Your task to perform on an android device: check google app version Image 0: 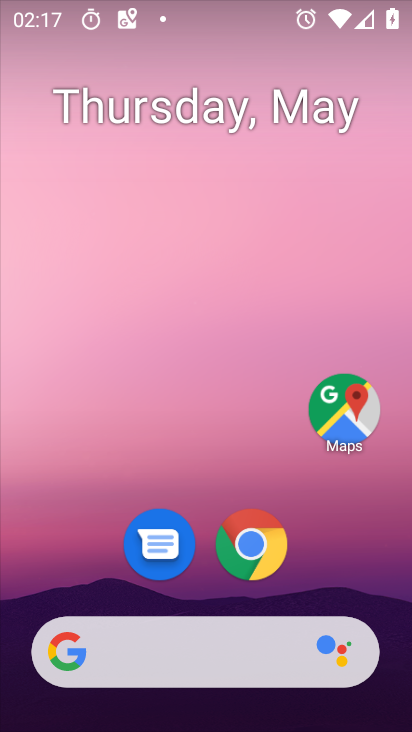
Step 0: drag from (387, 585) to (384, 382)
Your task to perform on an android device: check google app version Image 1: 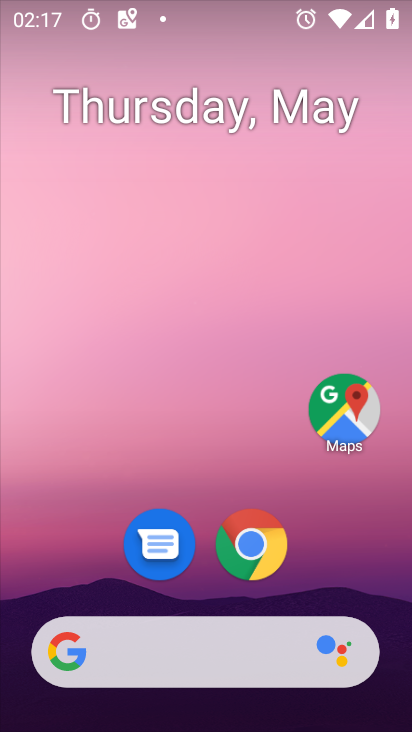
Step 1: drag from (363, 490) to (356, 132)
Your task to perform on an android device: check google app version Image 2: 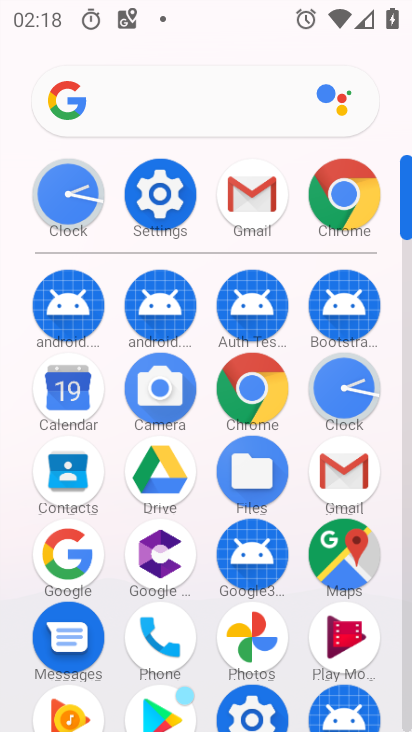
Step 2: click (53, 544)
Your task to perform on an android device: check google app version Image 3: 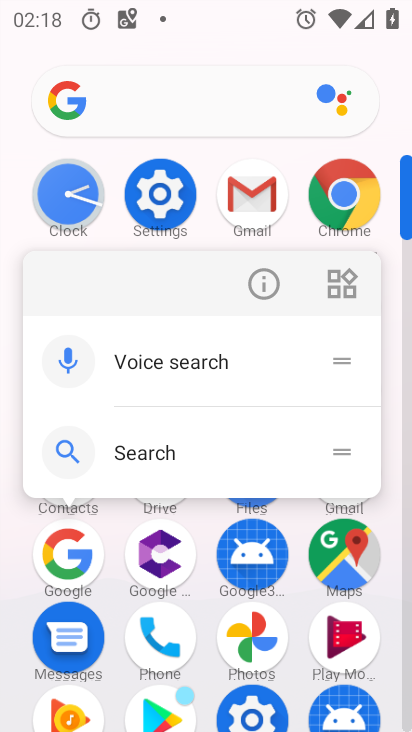
Step 3: click (64, 587)
Your task to perform on an android device: check google app version Image 4: 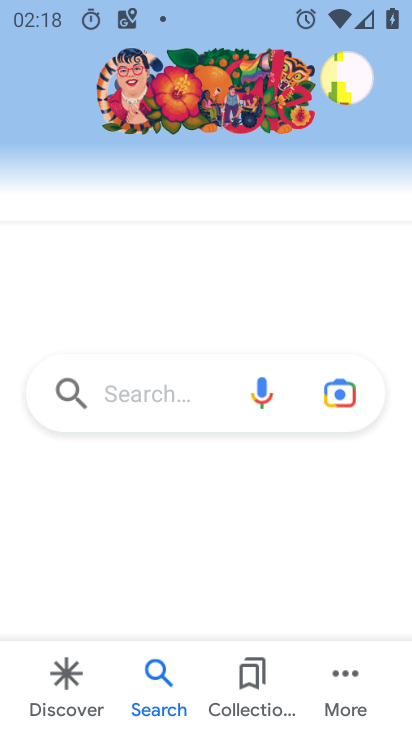
Step 4: click (344, 690)
Your task to perform on an android device: check google app version Image 5: 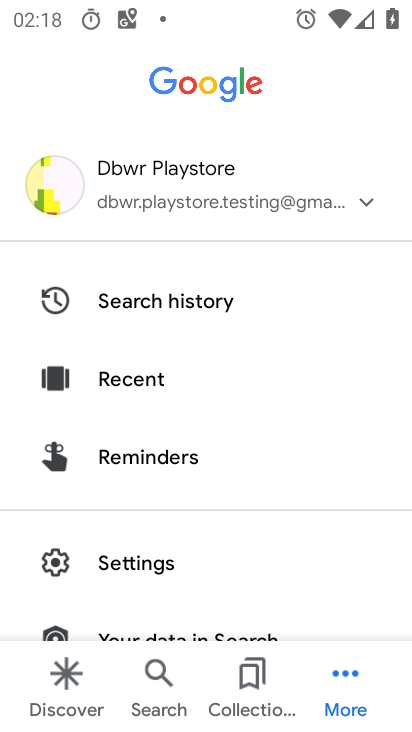
Step 5: click (148, 564)
Your task to perform on an android device: check google app version Image 6: 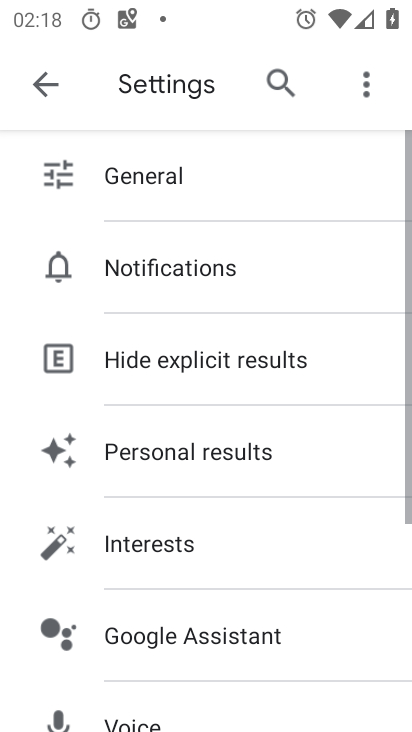
Step 6: drag from (277, 555) to (266, 470)
Your task to perform on an android device: check google app version Image 7: 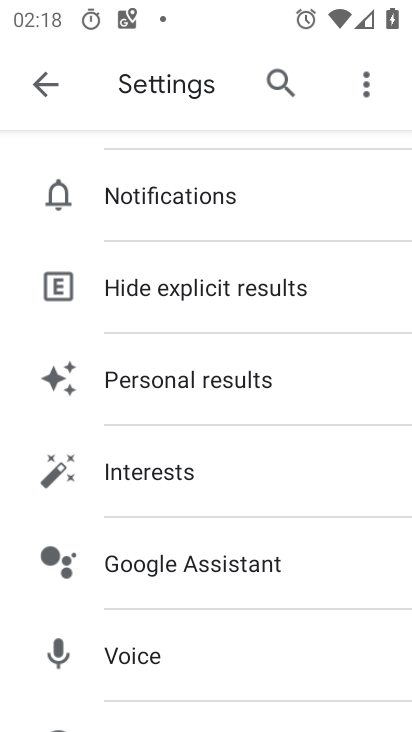
Step 7: drag from (276, 645) to (283, 517)
Your task to perform on an android device: check google app version Image 8: 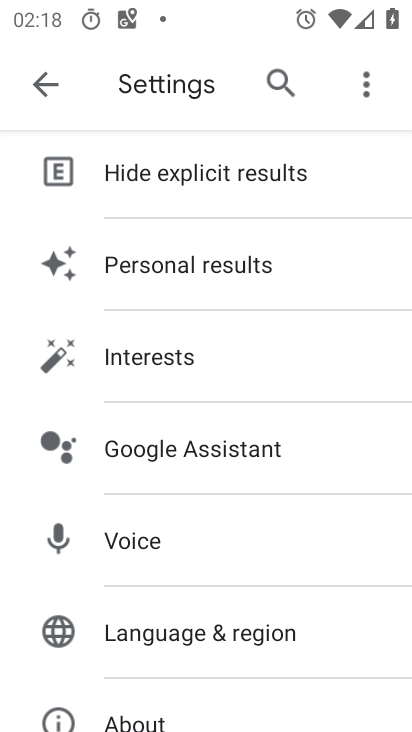
Step 8: drag from (223, 629) to (221, 553)
Your task to perform on an android device: check google app version Image 9: 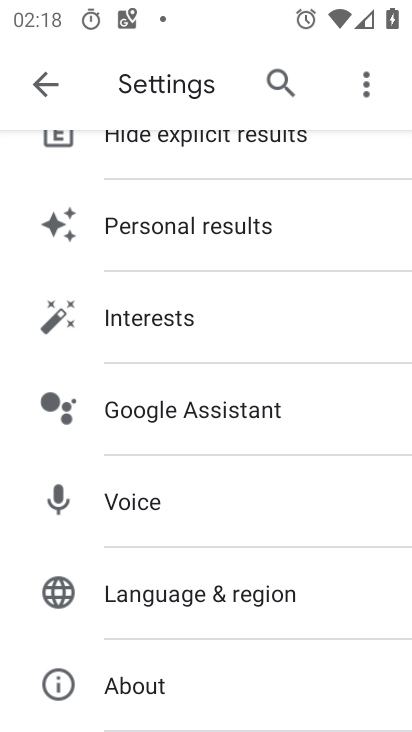
Step 9: click (171, 683)
Your task to perform on an android device: check google app version Image 10: 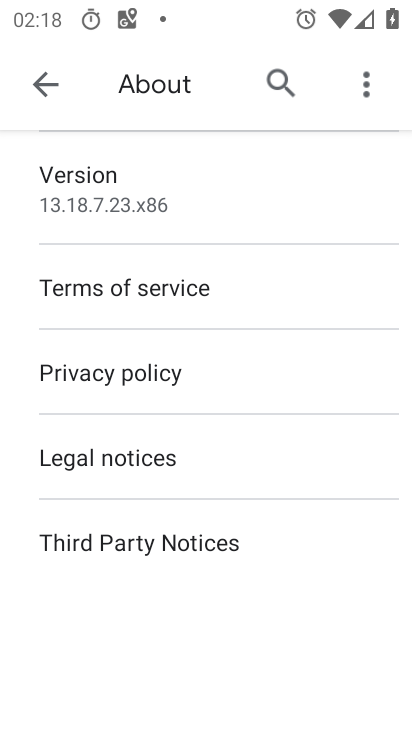
Step 10: task complete